Your task to perform on an android device: snooze an email in the gmail app Image 0: 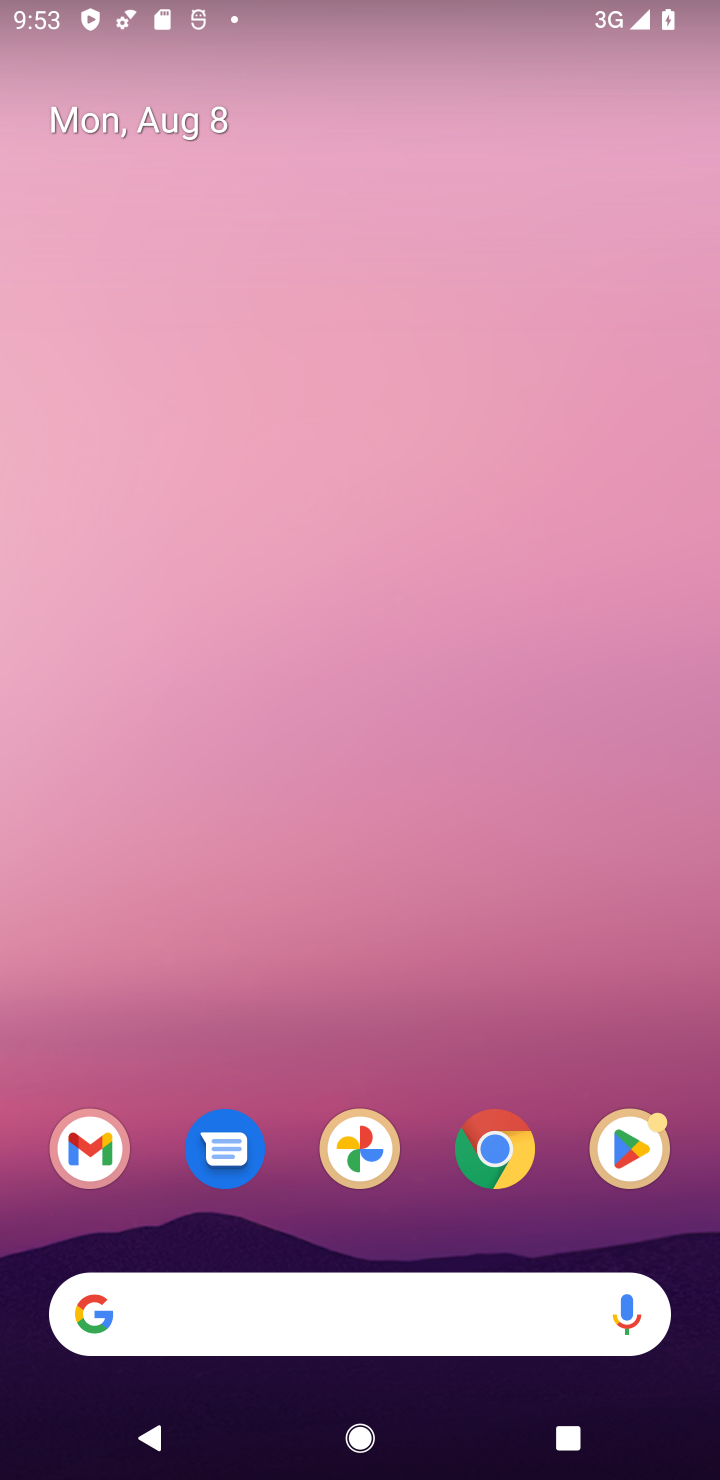
Step 0: drag from (385, 427) to (390, 341)
Your task to perform on an android device: snooze an email in the gmail app Image 1: 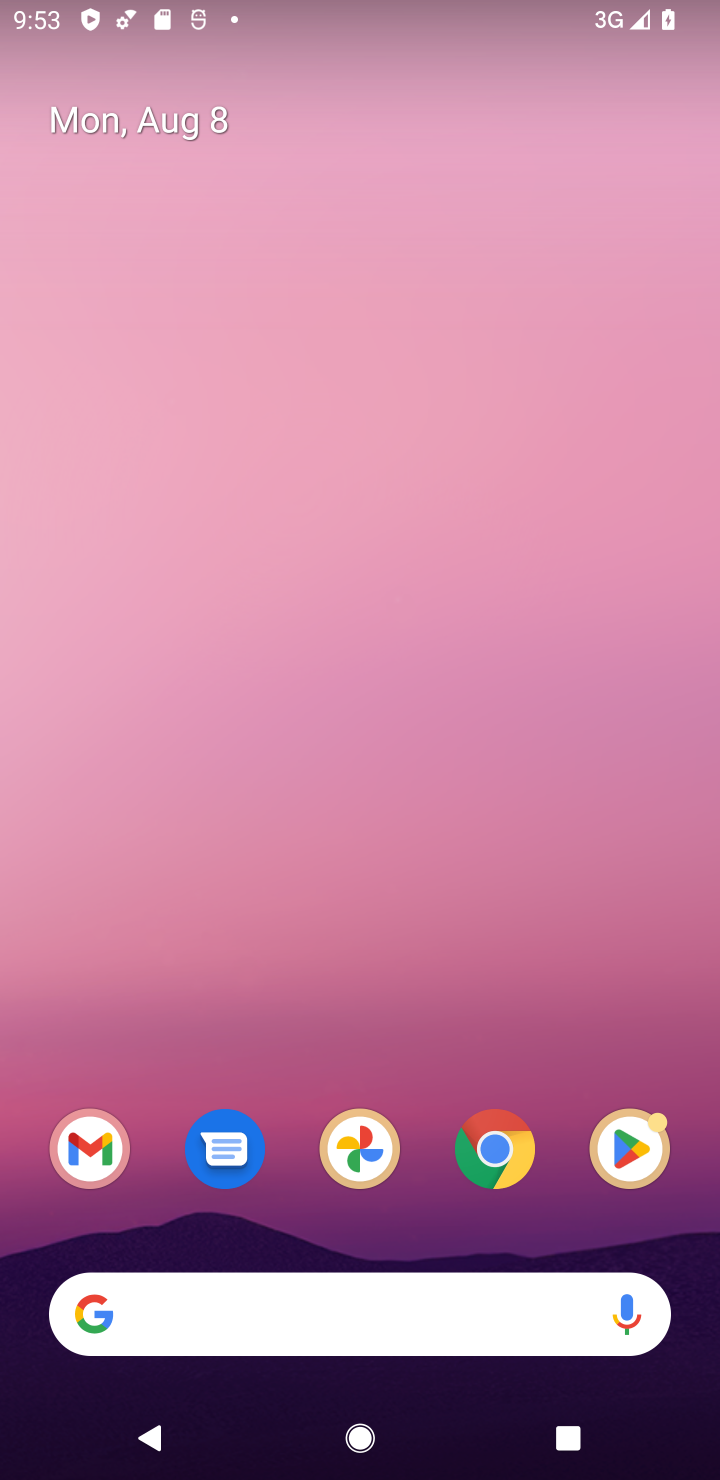
Step 1: drag from (386, 1285) to (375, 531)
Your task to perform on an android device: snooze an email in the gmail app Image 2: 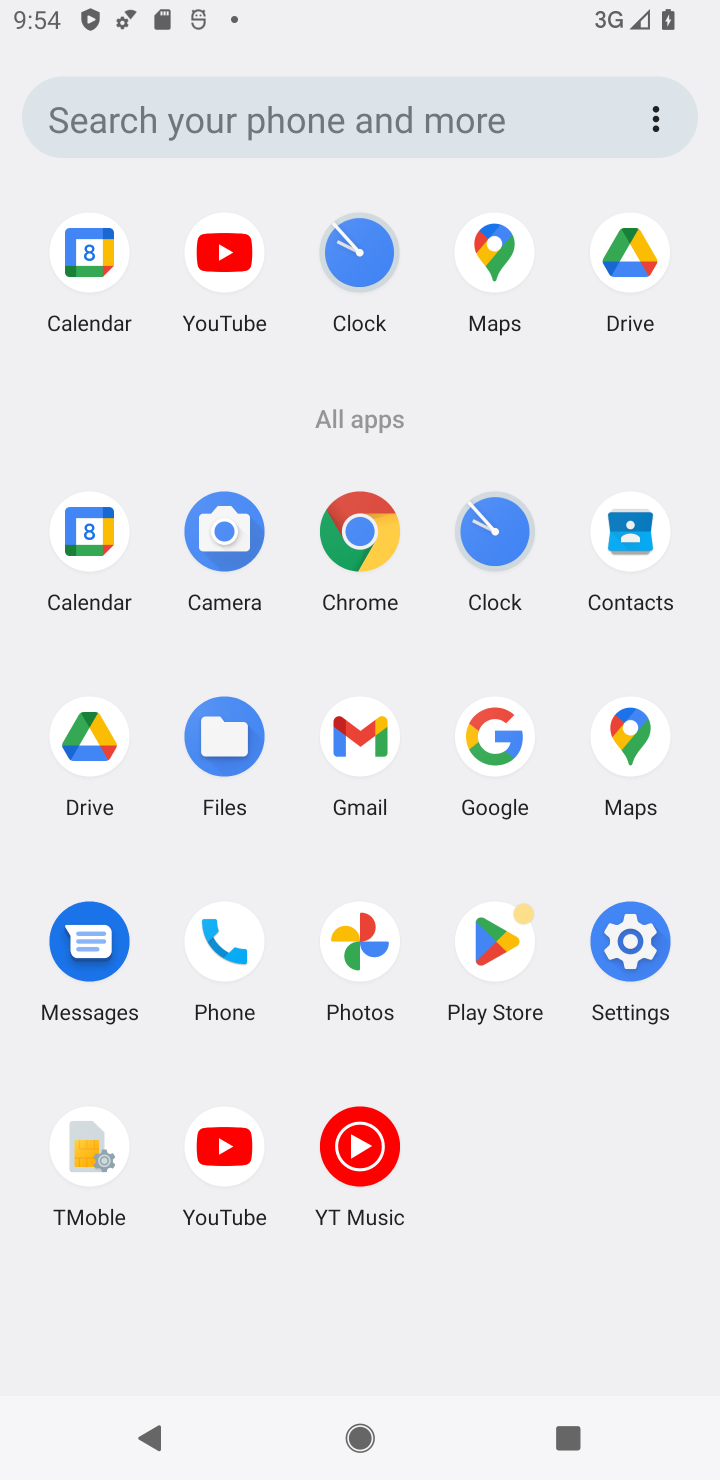
Step 2: click (347, 736)
Your task to perform on an android device: snooze an email in the gmail app Image 3: 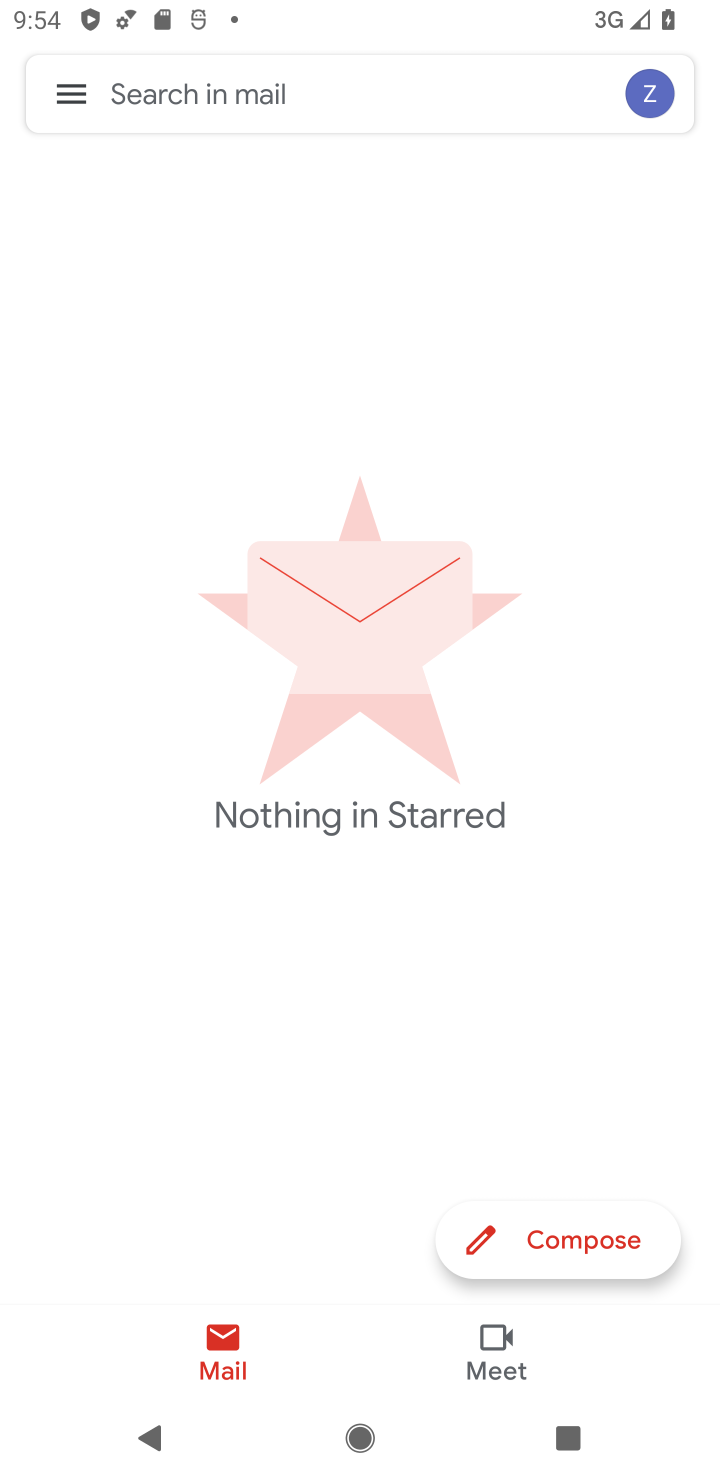
Step 3: click (64, 94)
Your task to perform on an android device: snooze an email in the gmail app Image 4: 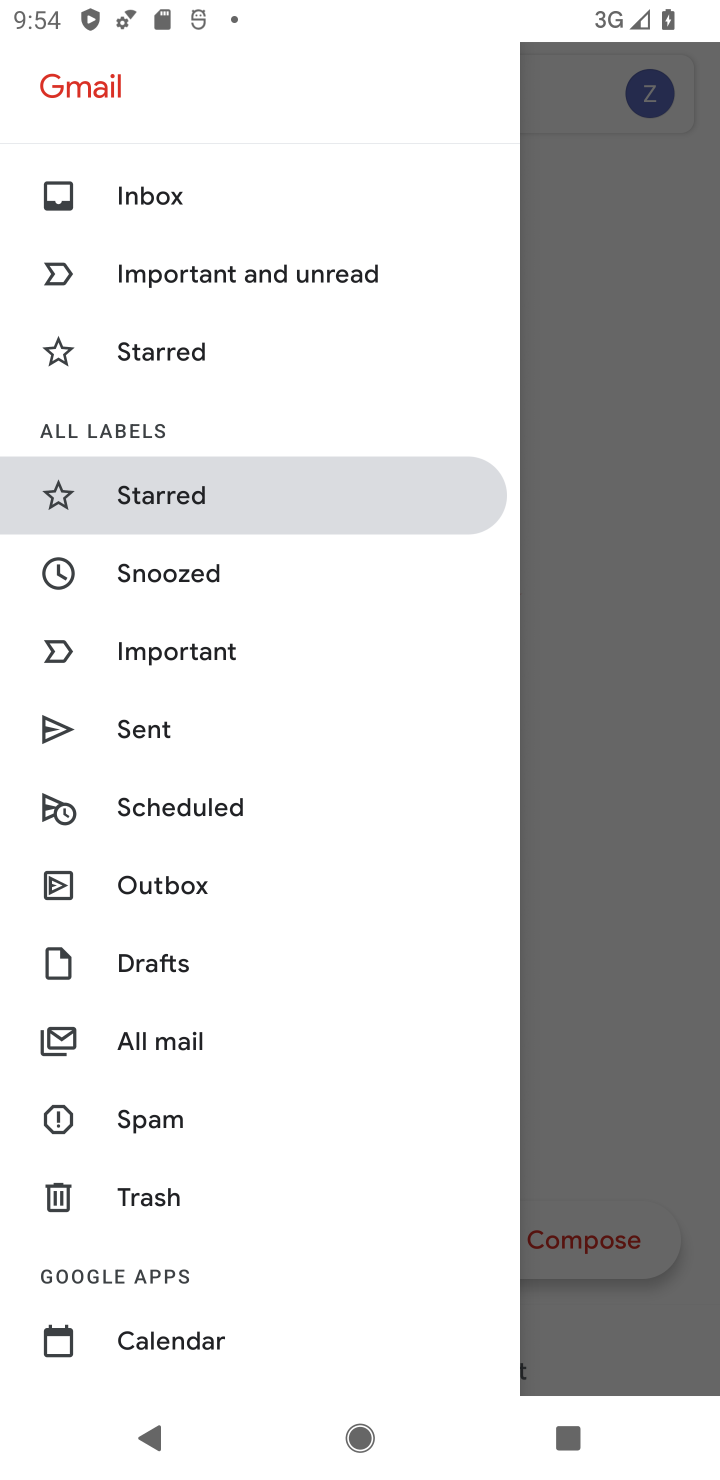
Step 4: drag from (217, 1306) to (217, 675)
Your task to perform on an android device: snooze an email in the gmail app Image 5: 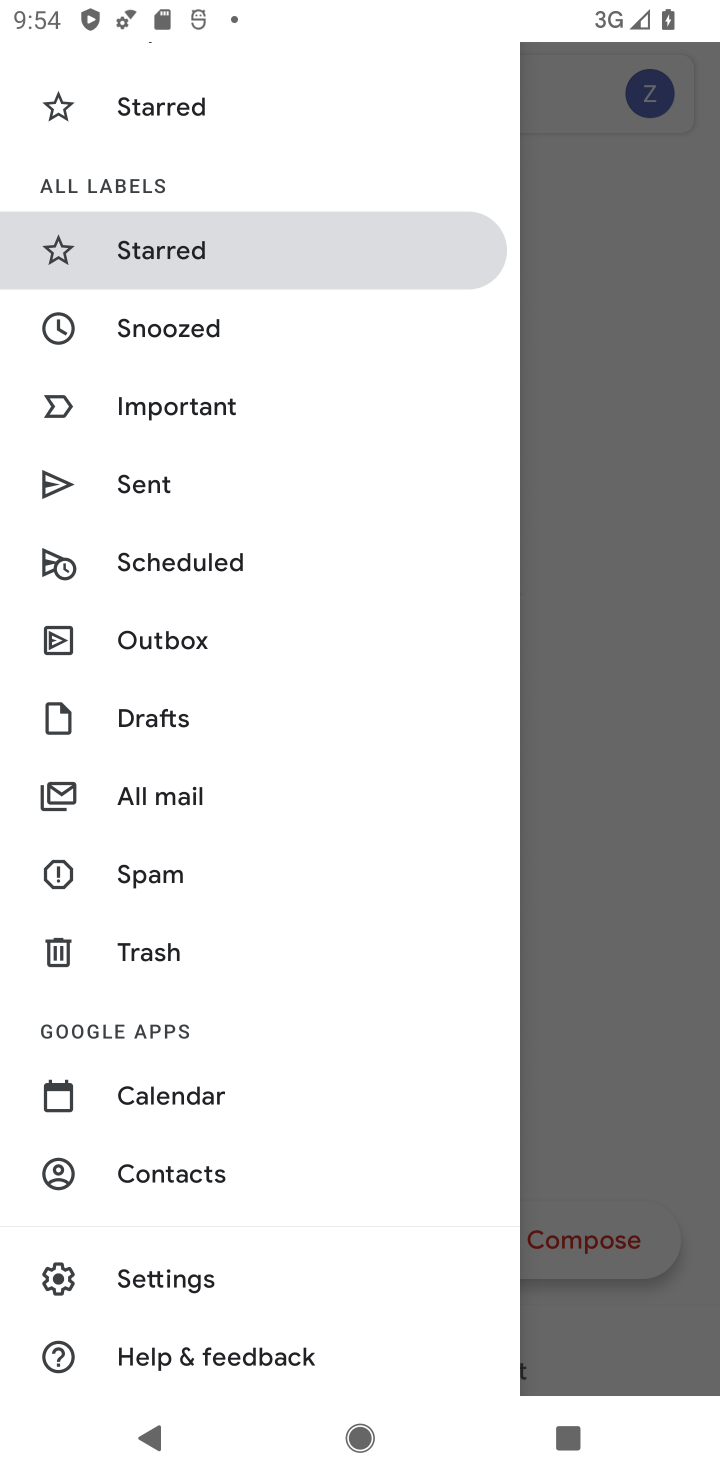
Step 5: drag from (239, 198) to (312, 865)
Your task to perform on an android device: snooze an email in the gmail app Image 6: 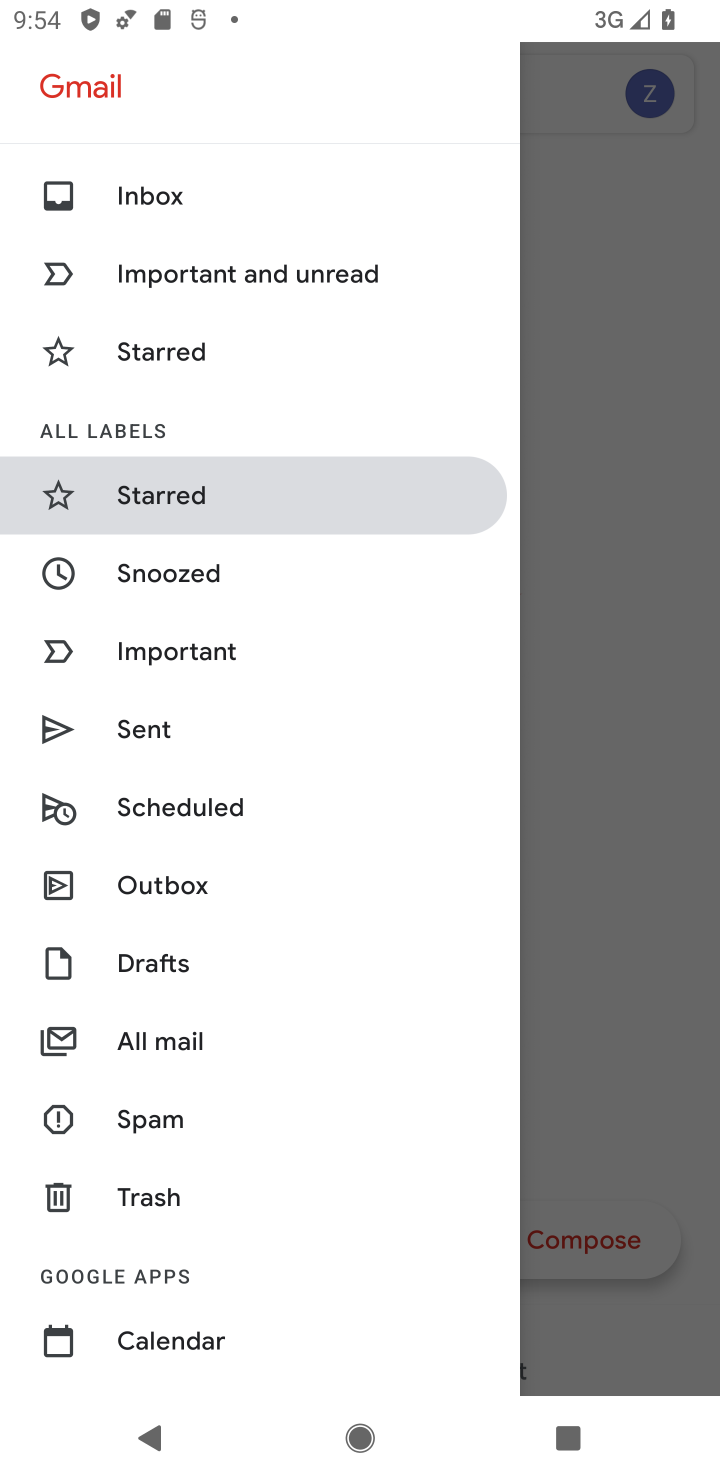
Step 6: click (141, 194)
Your task to perform on an android device: snooze an email in the gmail app Image 7: 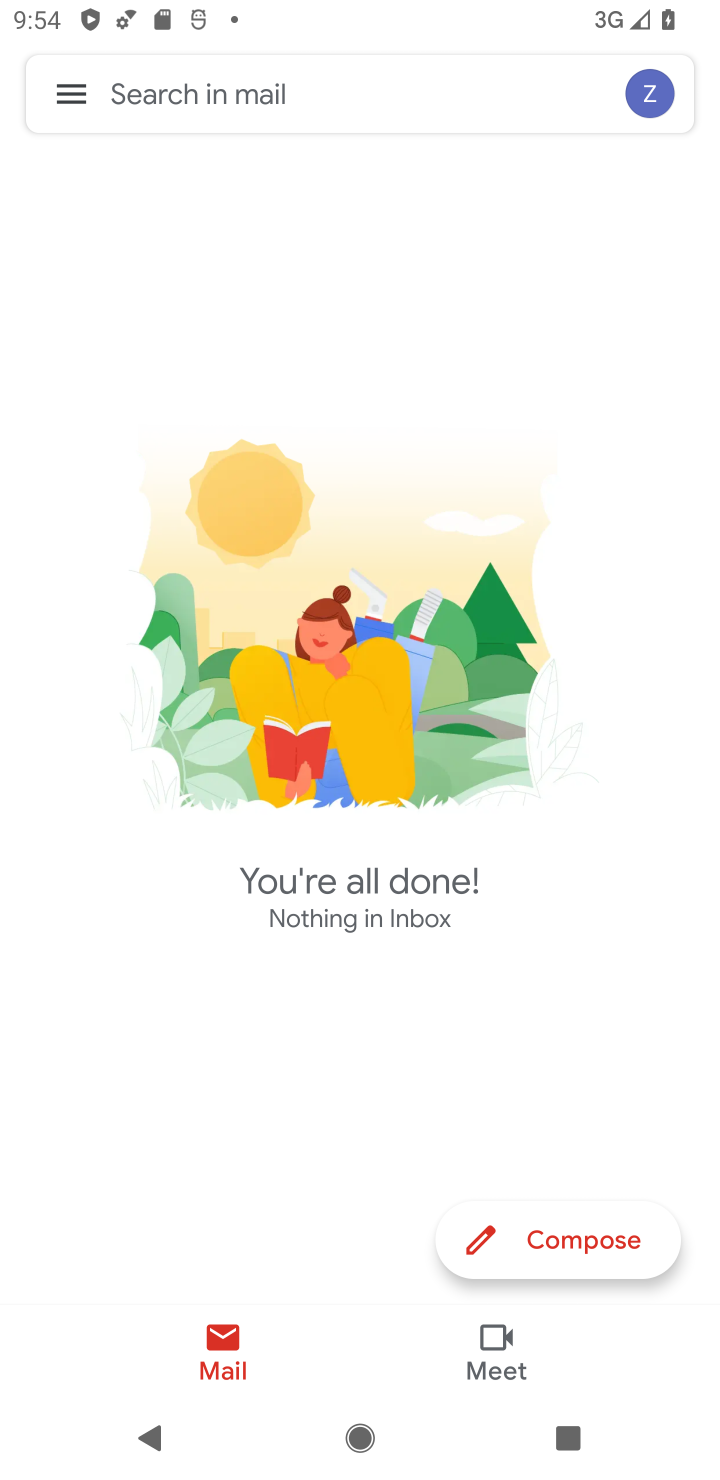
Step 7: task complete